Your task to perform on an android device: Go to privacy settings Image 0: 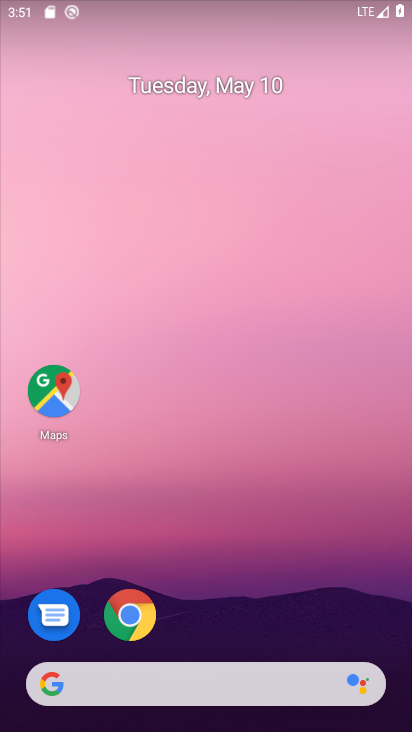
Step 0: drag from (182, 680) to (199, 70)
Your task to perform on an android device: Go to privacy settings Image 1: 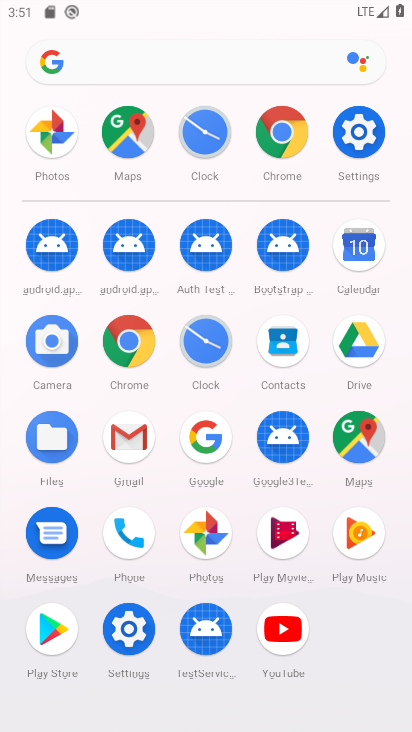
Step 1: click (363, 128)
Your task to perform on an android device: Go to privacy settings Image 2: 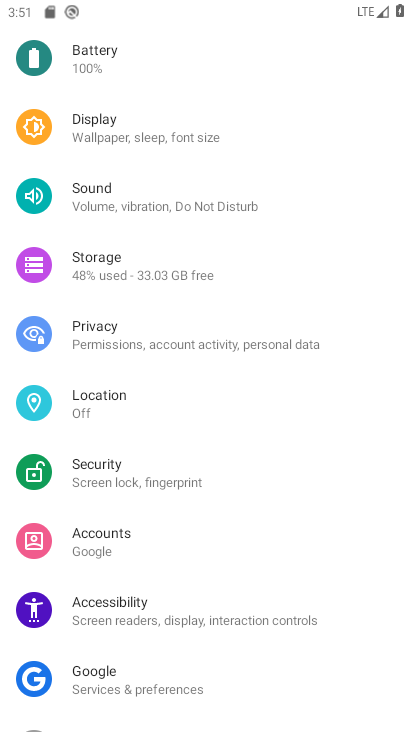
Step 2: drag from (139, 146) to (194, 633)
Your task to perform on an android device: Go to privacy settings Image 3: 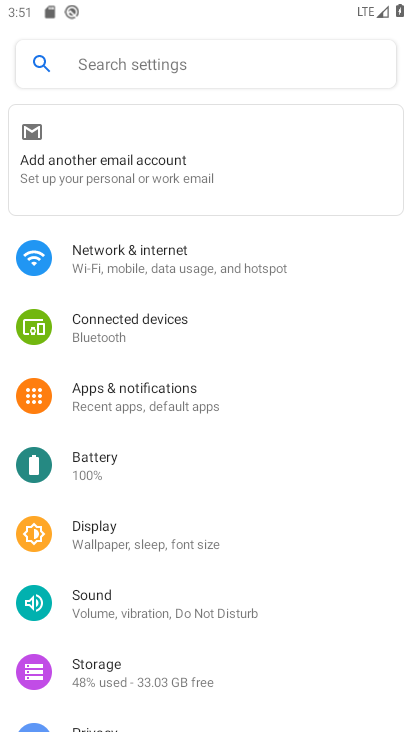
Step 3: drag from (156, 623) to (136, 279)
Your task to perform on an android device: Go to privacy settings Image 4: 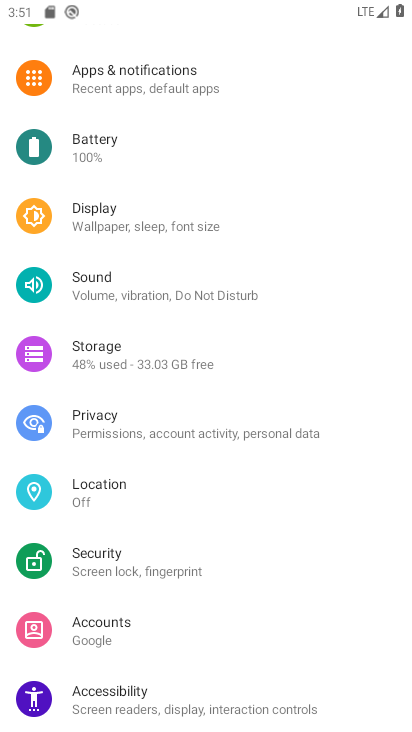
Step 4: click (143, 432)
Your task to perform on an android device: Go to privacy settings Image 5: 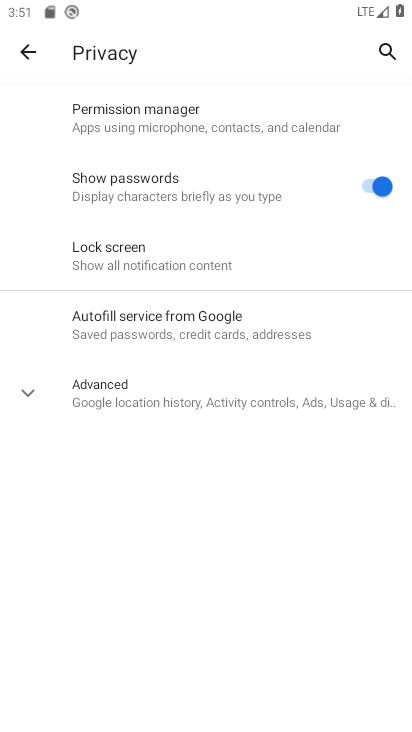
Step 5: task complete